Your task to perform on an android device: change the clock style Image 0: 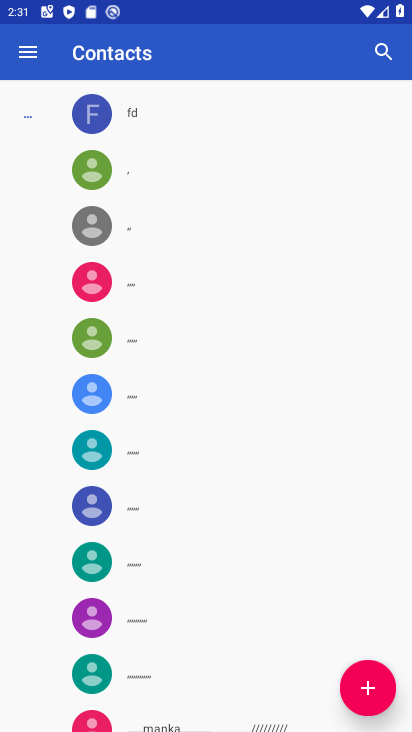
Step 0: press home button
Your task to perform on an android device: change the clock style Image 1: 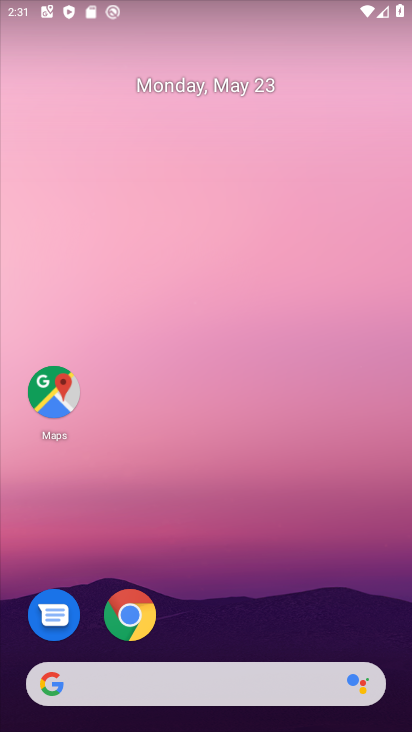
Step 1: drag from (249, 637) to (260, 40)
Your task to perform on an android device: change the clock style Image 2: 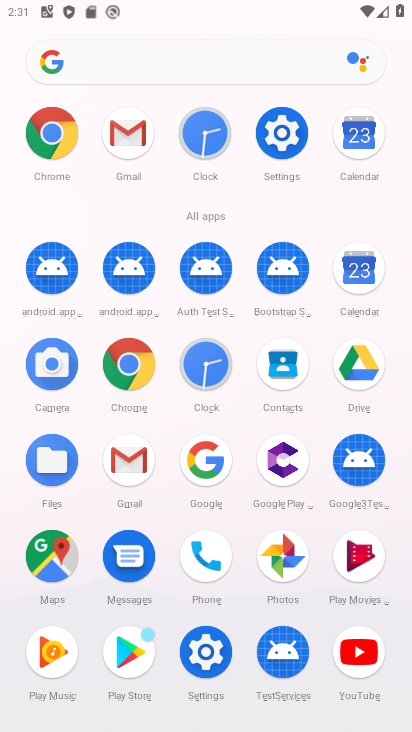
Step 2: click (206, 136)
Your task to perform on an android device: change the clock style Image 3: 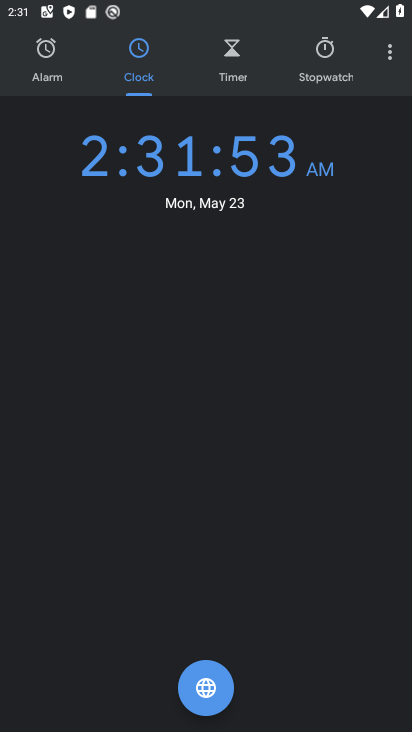
Step 3: click (393, 53)
Your task to perform on an android device: change the clock style Image 4: 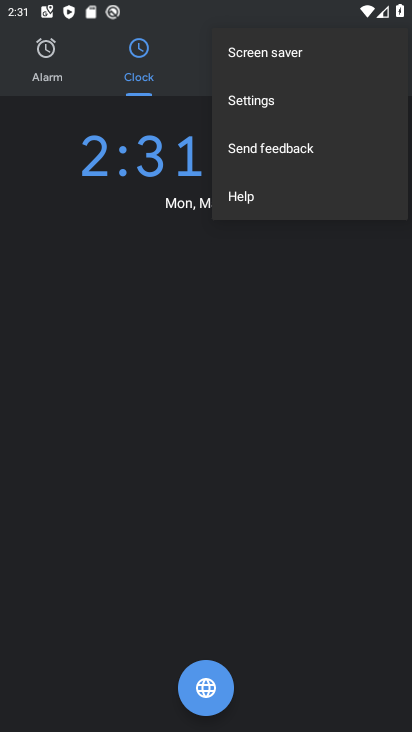
Step 4: click (237, 108)
Your task to perform on an android device: change the clock style Image 5: 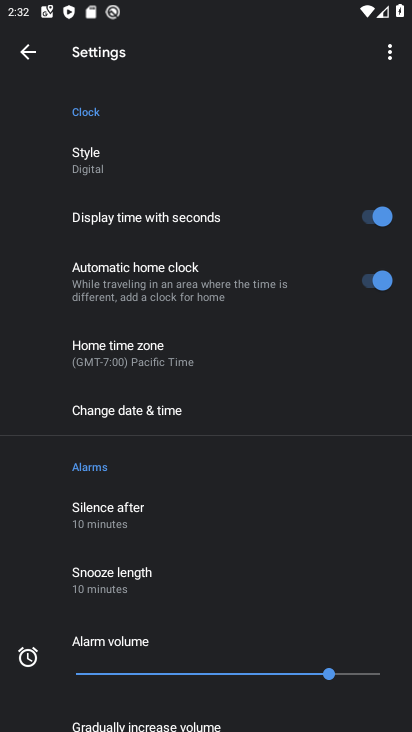
Step 5: click (94, 166)
Your task to perform on an android device: change the clock style Image 6: 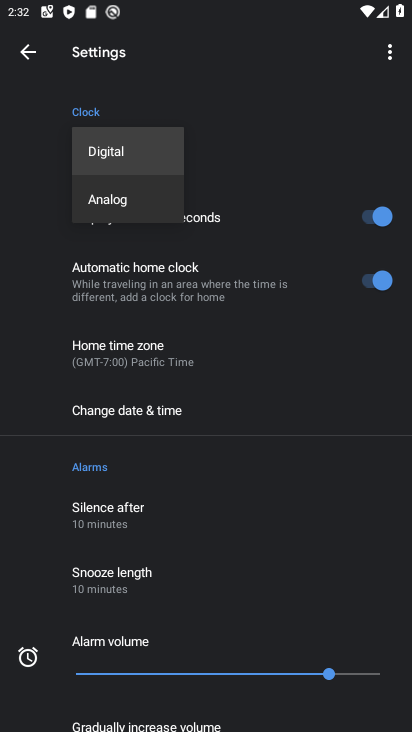
Step 6: click (113, 203)
Your task to perform on an android device: change the clock style Image 7: 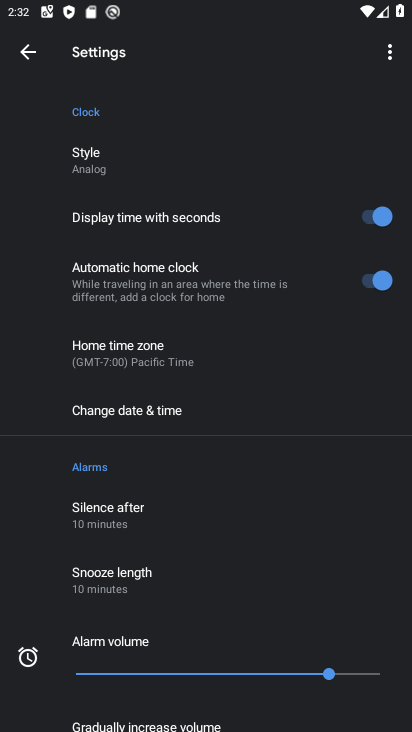
Step 7: task complete